Your task to perform on an android device: Open wifi settings Image 0: 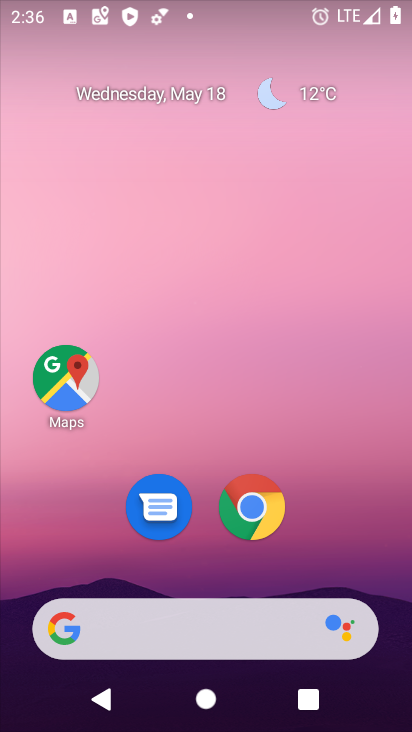
Step 0: drag from (397, 617) to (346, 109)
Your task to perform on an android device: Open wifi settings Image 1: 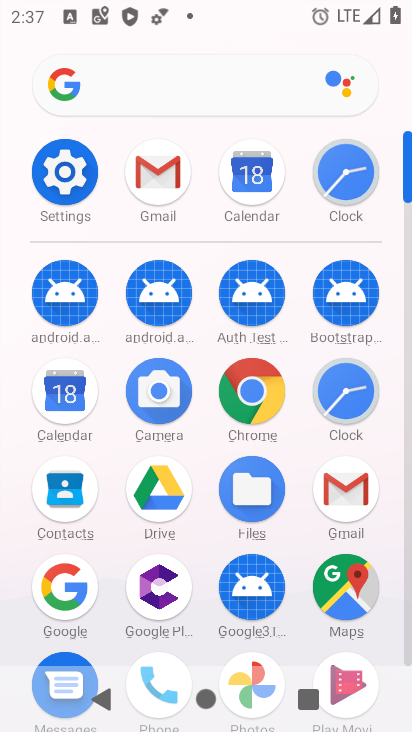
Step 1: click (405, 646)
Your task to perform on an android device: Open wifi settings Image 2: 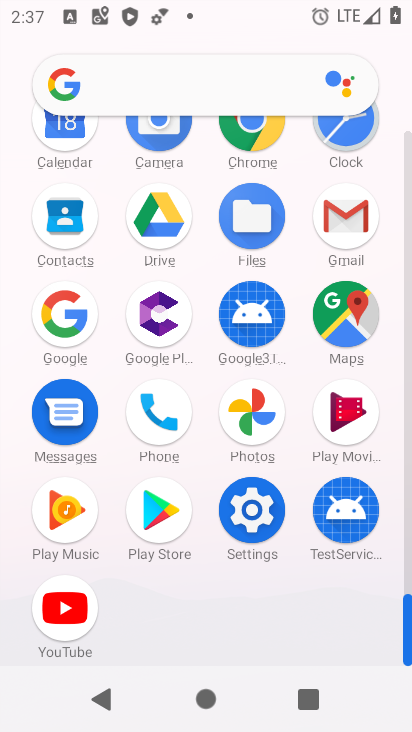
Step 2: click (248, 510)
Your task to perform on an android device: Open wifi settings Image 3: 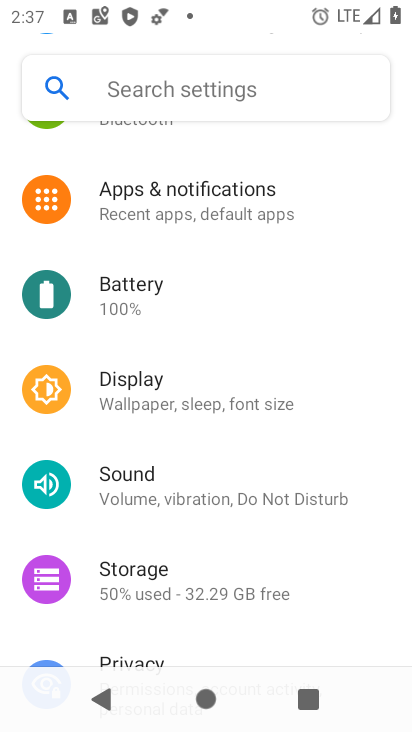
Step 3: drag from (345, 212) to (377, 571)
Your task to perform on an android device: Open wifi settings Image 4: 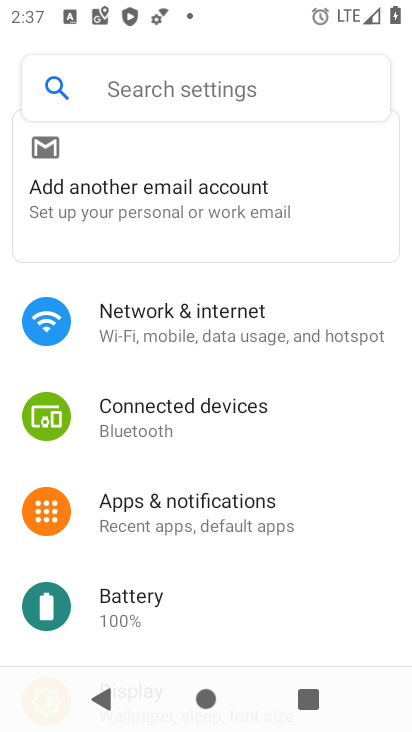
Step 4: click (144, 312)
Your task to perform on an android device: Open wifi settings Image 5: 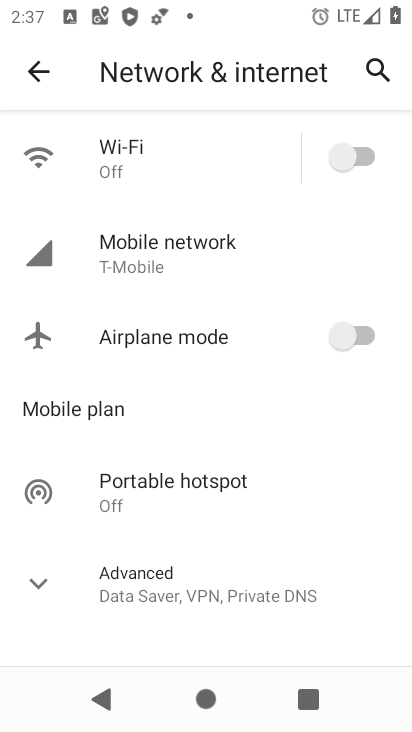
Step 5: click (110, 160)
Your task to perform on an android device: Open wifi settings Image 6: 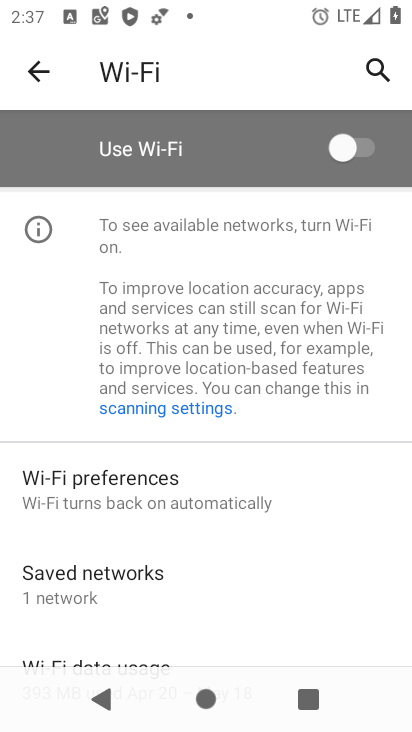
Step 6: task complete